Your task to perform on an android device: check the backup settings in the google photos Image 0: 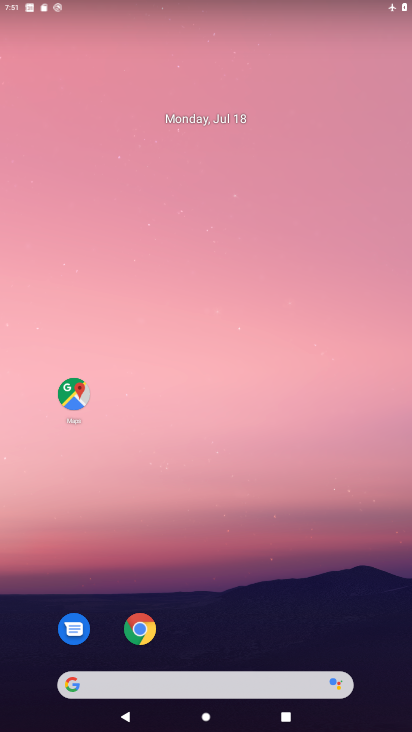
Step 0: drag from (45, 572) to (221, 91)
Your task to perform on an android device: check the backup settings in the google photos Image 1: 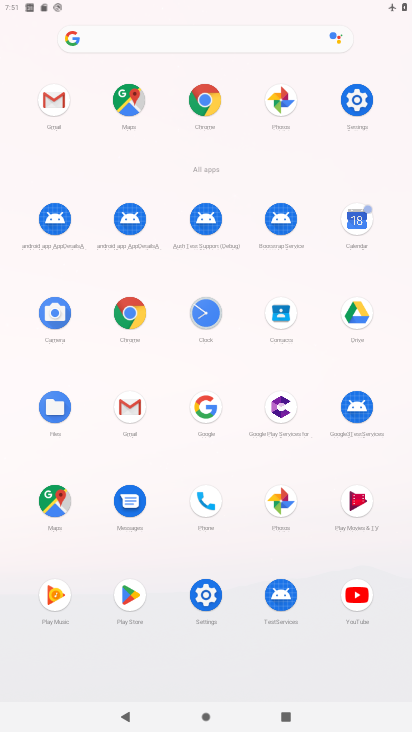
Step 1: click (288, 107)
Your task to perform on an android device: check the backup settings in the google photos Image 2: 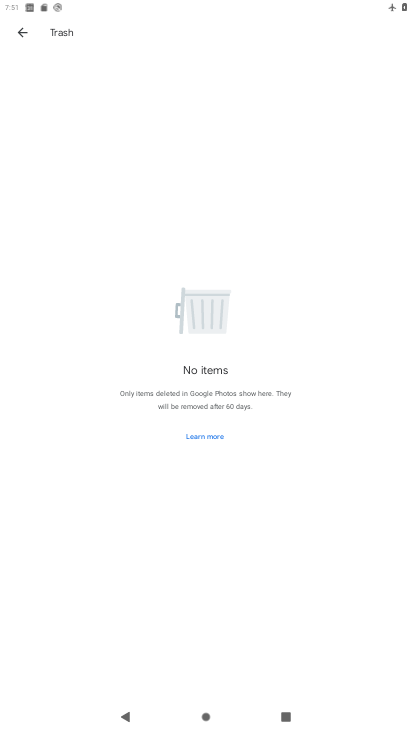
Step 2: click (22, 38)
Your task to perform on an android device: check the backup settings in the google photos Image 3: 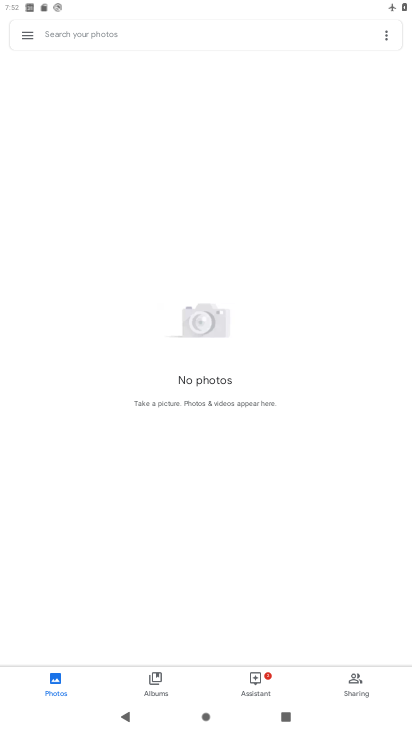
Step 3: click (19, 32)
Your task to perform on an android device: check the backup settings in the google photos Image 4: 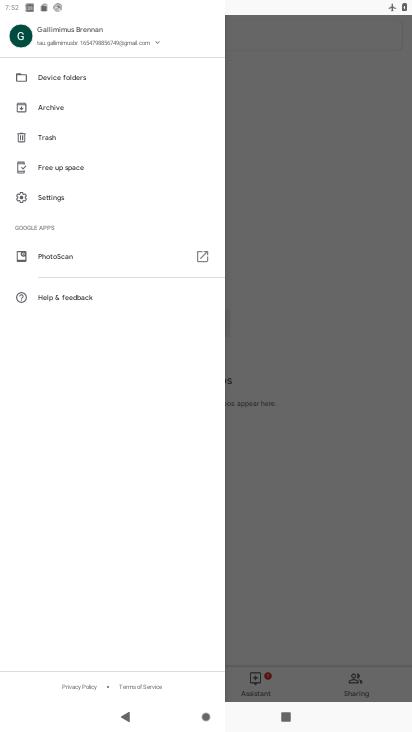
Step 4: click (72, 200)
Your task to perform on an android device: check the backup settings in the google photos Image 5: 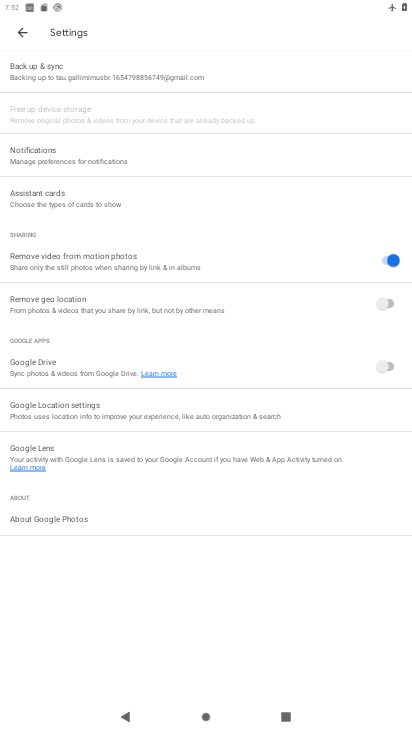
Step 5: click (70, 67)
Your task to perform on an android device: check the backup settings in the google photos Image 6: 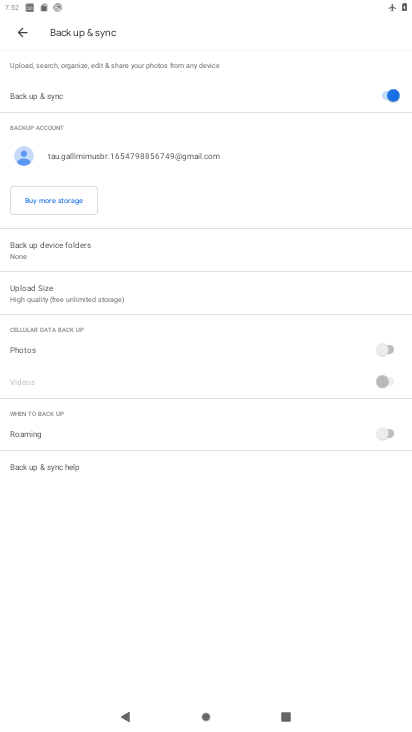
Step 6: task complete